Your task to perform on an android device: Open Android settings Image 0: 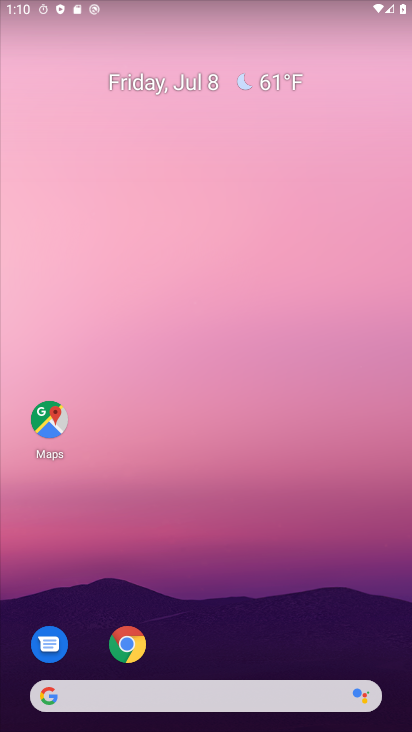
Step 0: drag from (185, 142) to (185, 43)
Your task to perform on an android device: Open Android settings Image 1: 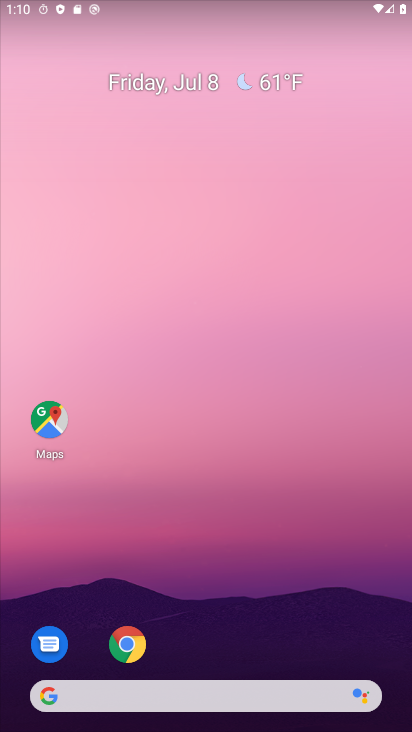
Step 1: drag from (217, 587) to (231, 71)
Your task to perform on an android device: Open Android settings Image 2: 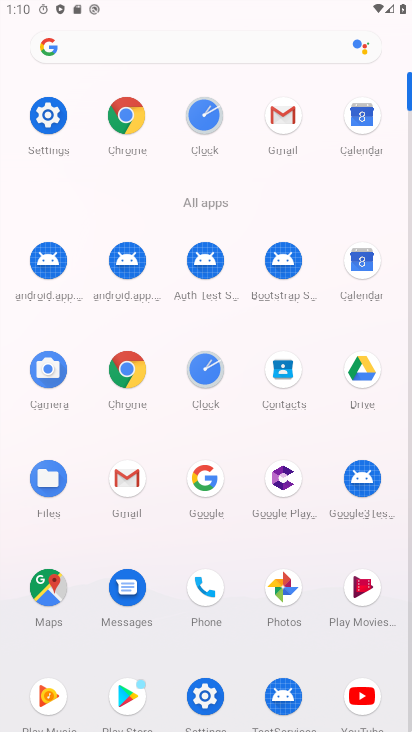
Step 2: click (42, 125)
Your task to perform on an android device: Open Android settings Image 3: 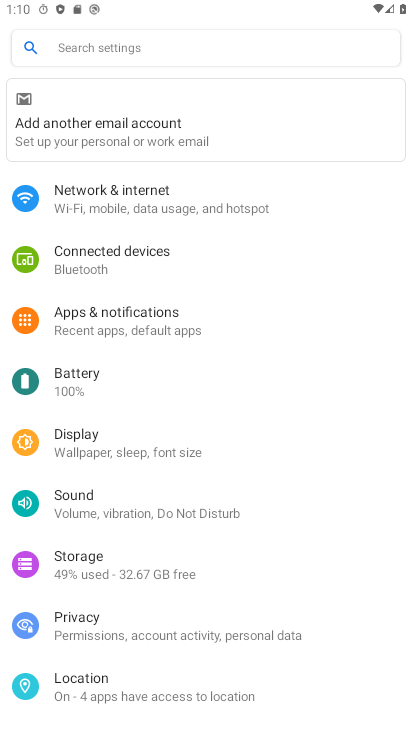
Step 3: drag from (152, 443) to (151, 123)
Your task to perform on an android device: Open Android settings Image 4: 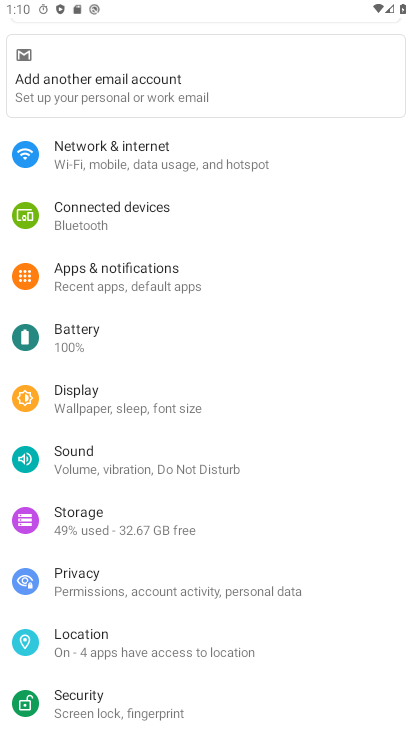
Step 4: drag from (138, 566) to (151, 236)
Your task to perform on an android device: Open Android settings Image 5: 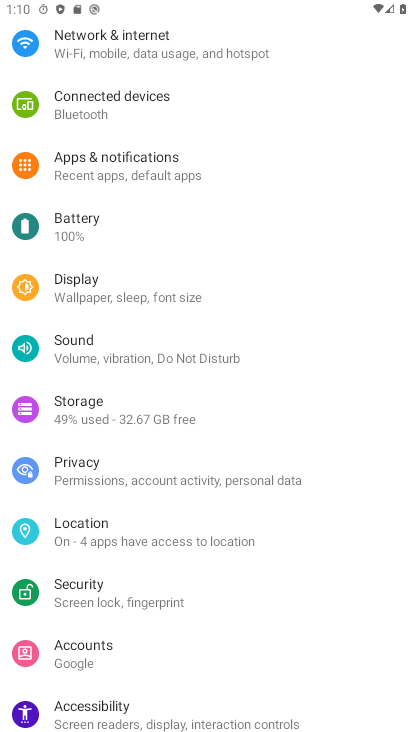
Step 5: drag from (149, 416) to (159, 156)
Your task to perform on an android device: Open Android settings Image 6: 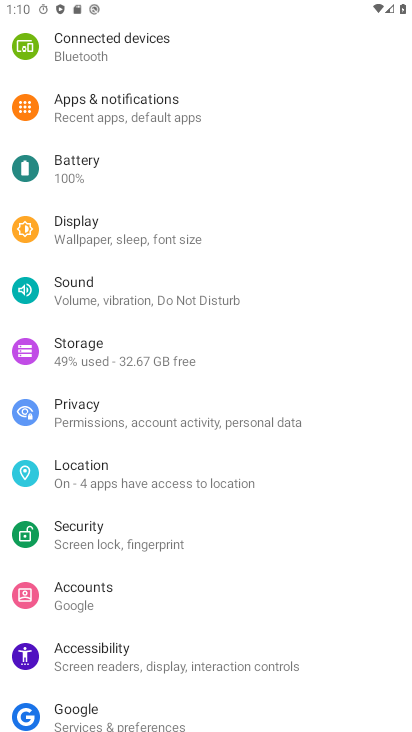
Step 6: click (137, 187)
Your task to perform on an android device: Open Android settings Image 7: 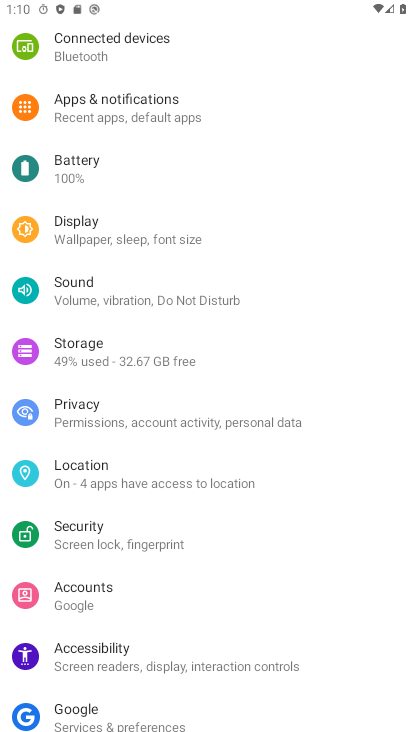
Step 7: drag from (154, 322) to (164, 186)
Your task to perform on an android device: Open Android settings Image 8: 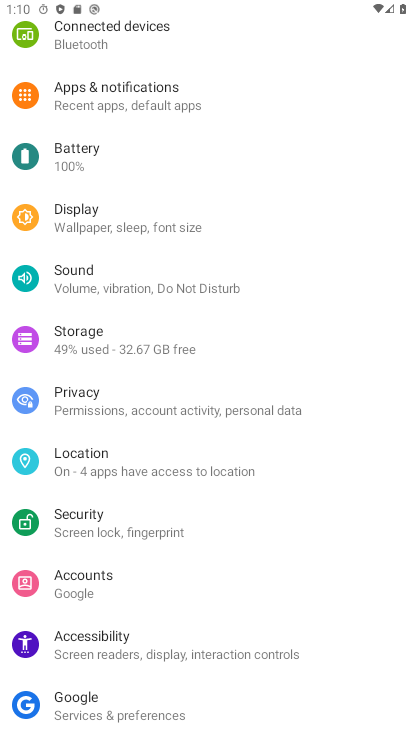
Step 8: drag from (149, 656) to (171, 420)
Your task to perform on an android device: Open Android settings Image 9: 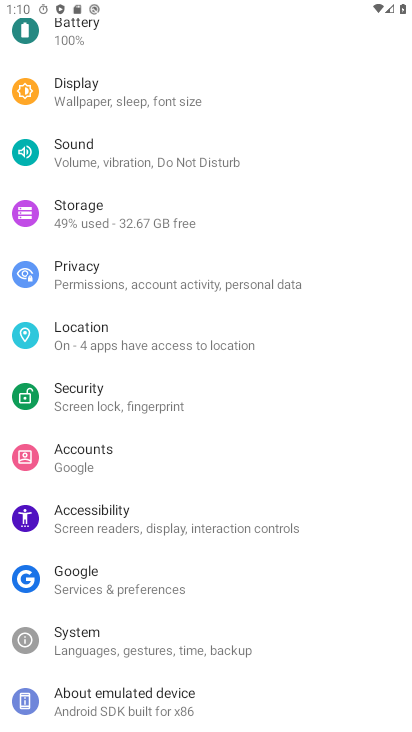
Step 9: click (90, 707)
Your task to perform on an android device: Open Android settings Image 10: 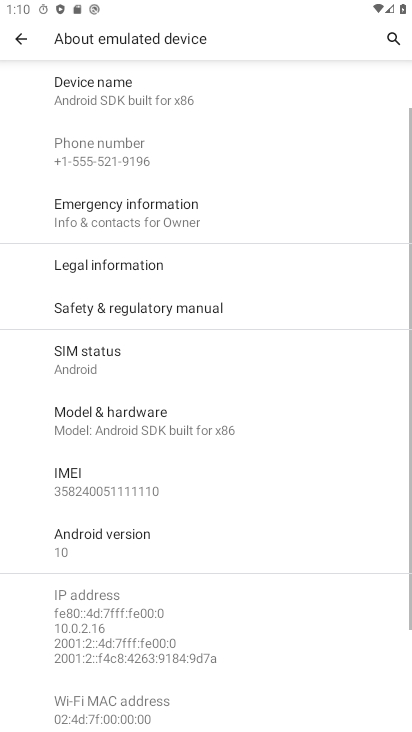
Step 10: click (98, 550)
Your task to perform on an android device: Open Android settings Image 11: 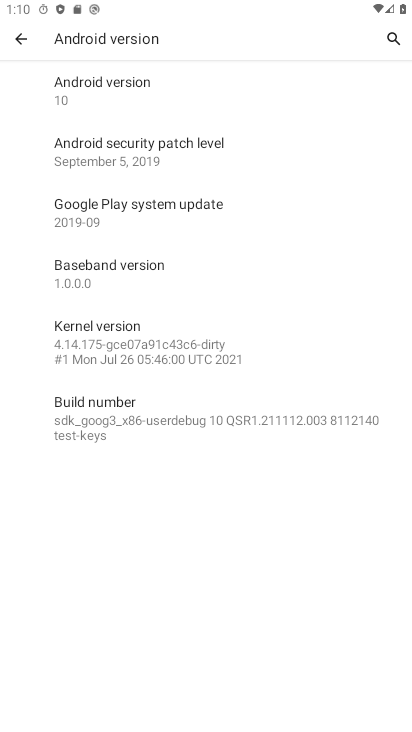
Step 11: task complete